Your task to perform on an android device: Go to Amazon Image 0: 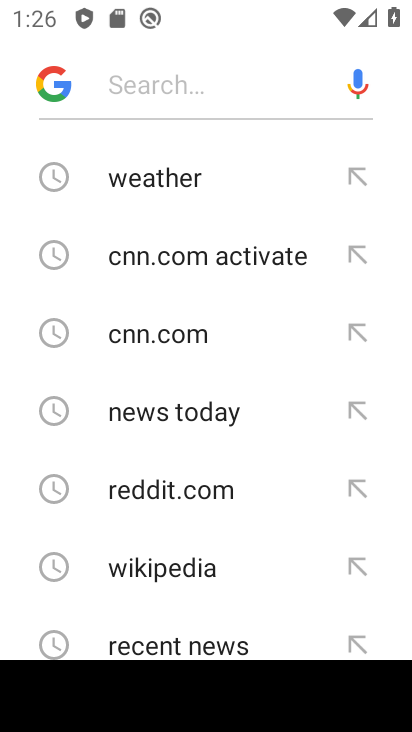
Step 0: press home button
Your task to perform on an android device: Go to Amazon Image 1: 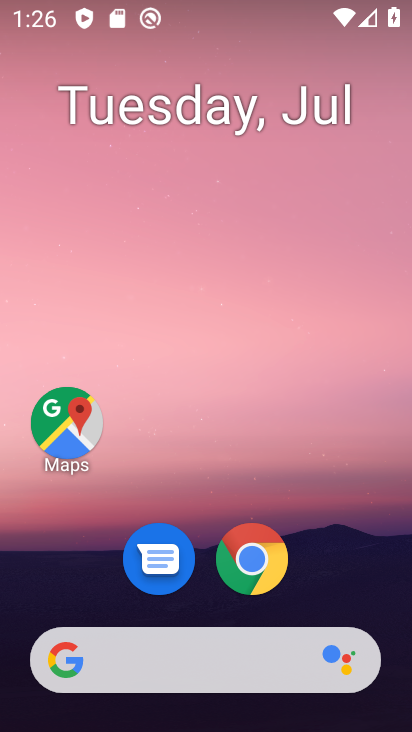
Step 1: drag from (342, 568) to (319, 141)
Your task to perform on an android device: Go to Amazon Image 2: 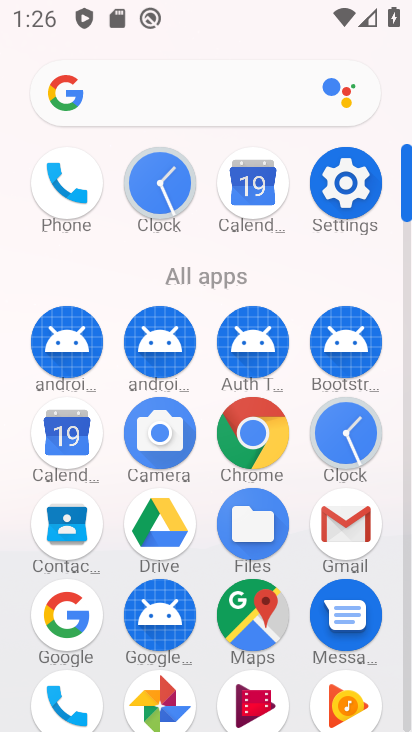
Step 2: click (263, 452)
Your task to perform on an android device: Go to Amazon Image 3: 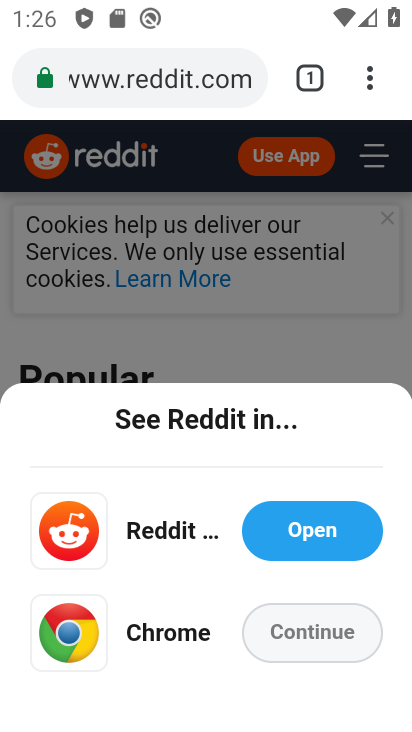
Step 3: press back button
Your task to perform on an android device: Go to Amazon Image 4: 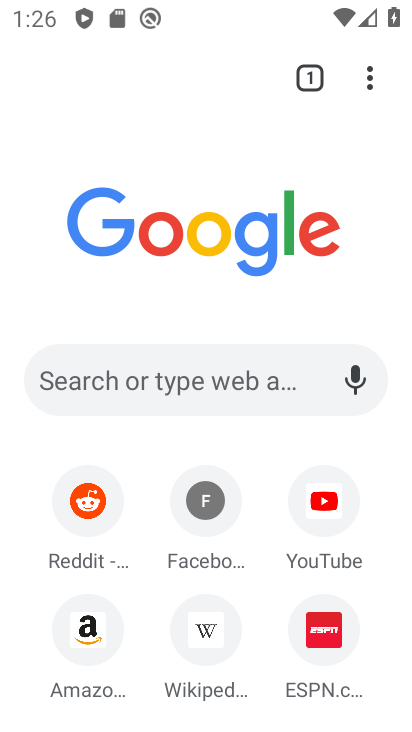
Step 4: click (79, 625)
Your task to perform on an android device: Go to Amazon Image 5: 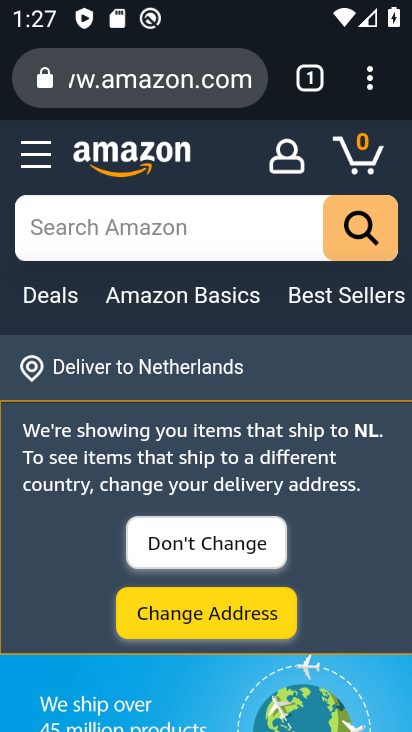
Step 5: task complete